Your task to perform on an android device: visit the assistant section in the google photos Image 0: 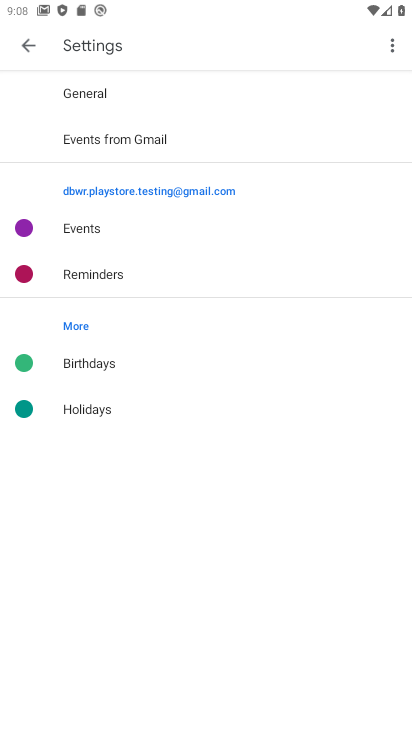
Step 0: press home button
Your task to perform on an android device: visit the assistant section in the google photos Image 1: 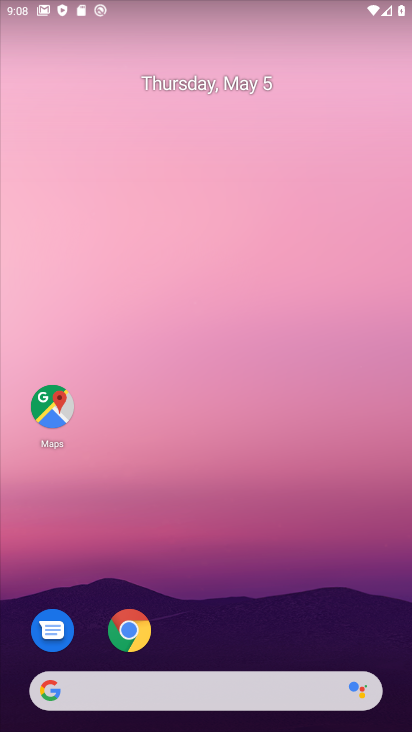
Step 1: drag from (249, 596) to (59, 118)
Your task to perform on an android device: visit the assistant section in the google photos Image 2: 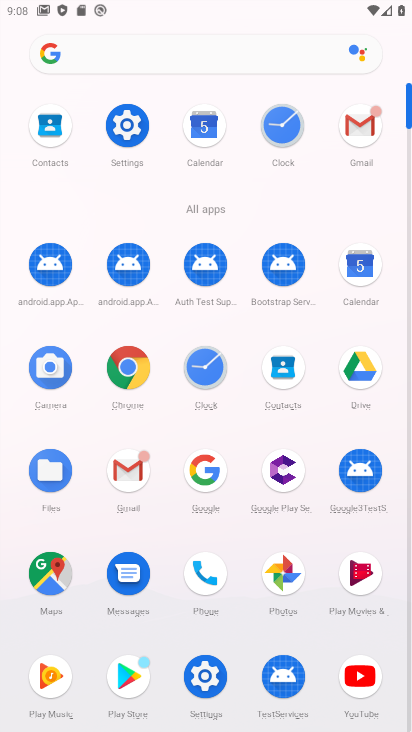
Step 2: click (282, 574)
Your task to perform on an android device: visit the assistant section in the google photos Image 3: 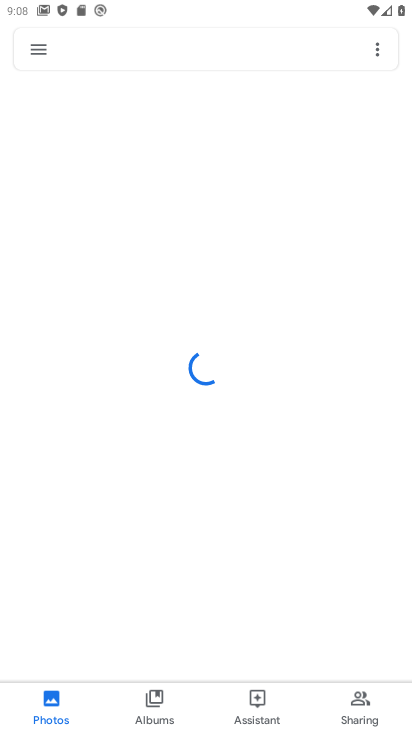
Step 3: click (254, 698)
Your task to perform on an android device: visit the assistant section in the google photos Image 4: 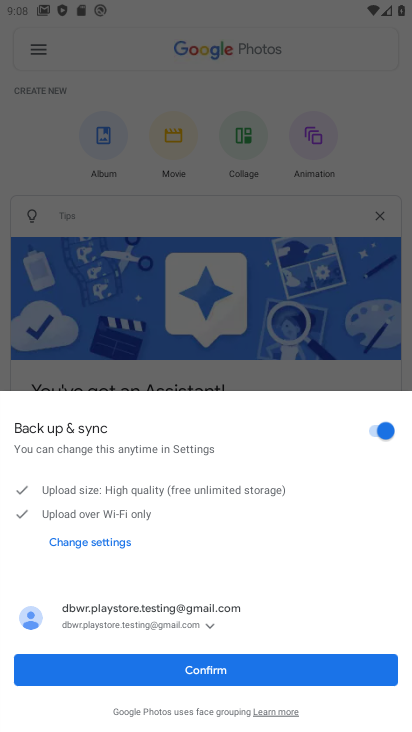
Step 4: click (250, 677)
Your task to perform on an android device: visit the assistant section in the google photos Image 5: 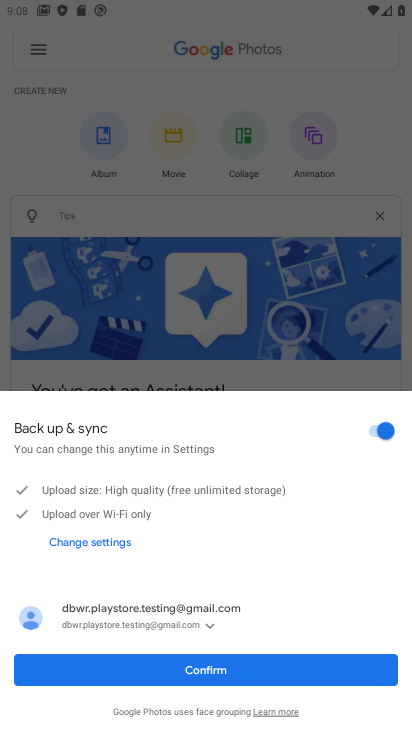
Step 5: click (250, 677)
Your task to perform on an android device: visit the assistant section in the google photos Image 6: 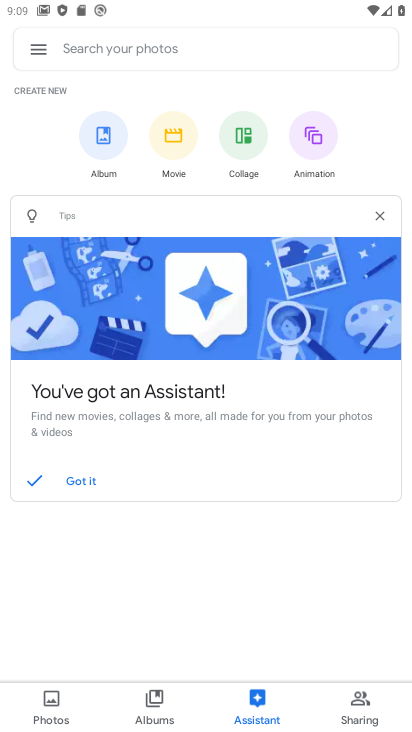
Step 6: task complete